Your task to perform on an android device: turn on showing notifications on the lock screen Image 0: 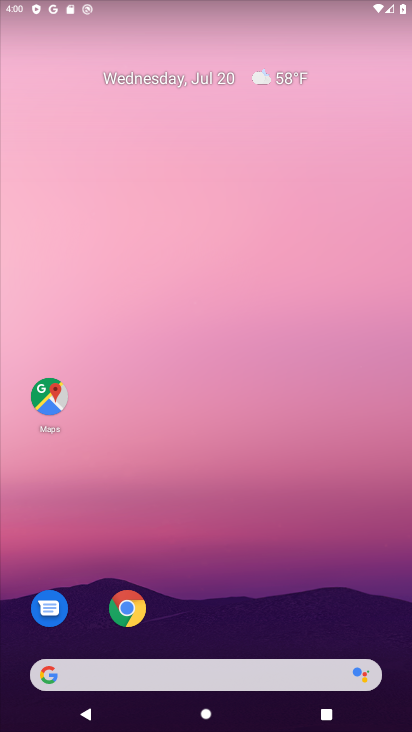
Step 0: drag from (212, 512) to (203, 101)
Your task to perform on an android device: turn on showing notifications on the lock screen Image 1: 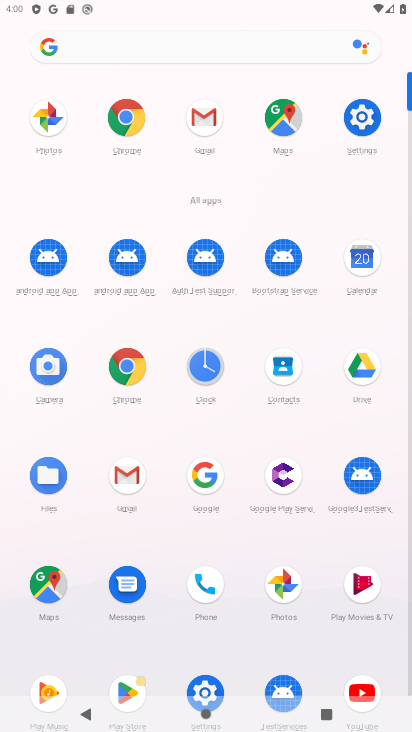
Step 1: click (200, 681)
Your task to perform on an android device: turn on showing notifications on the lock screen Image 2: 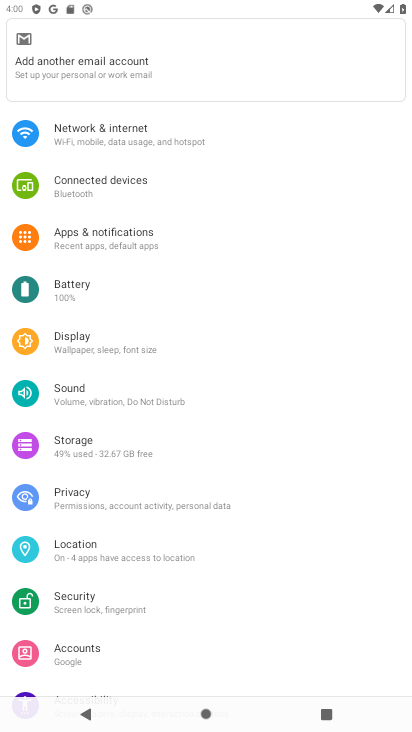
Step 2: click (126, 242)
Your task to perform on an android device: turn on showing notifications on the lock screen Image 3: 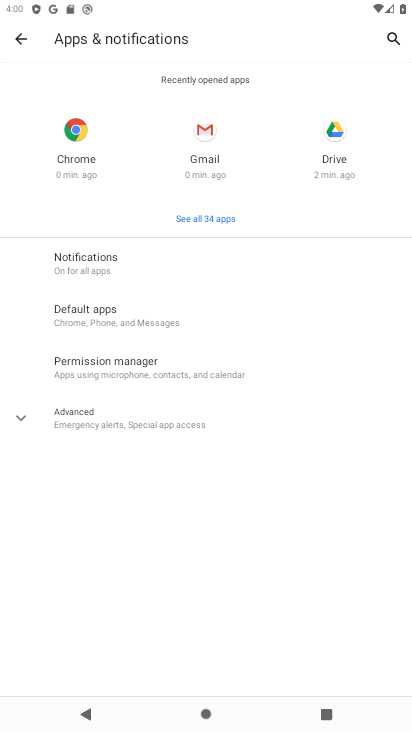
Step 3: click (109, 268)
Your task to perform on an android device: turn on showing notifications on the lock screen Image 4: 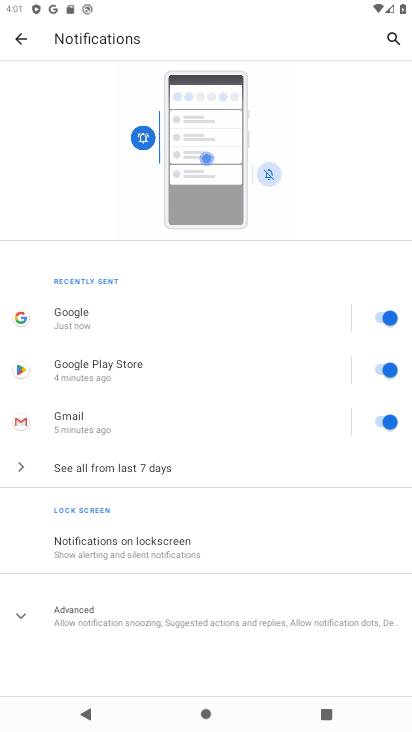
Step 4: click (96, 544)
Your task to perform on an android device: turn on showing notifications on the lock screen Image 5: 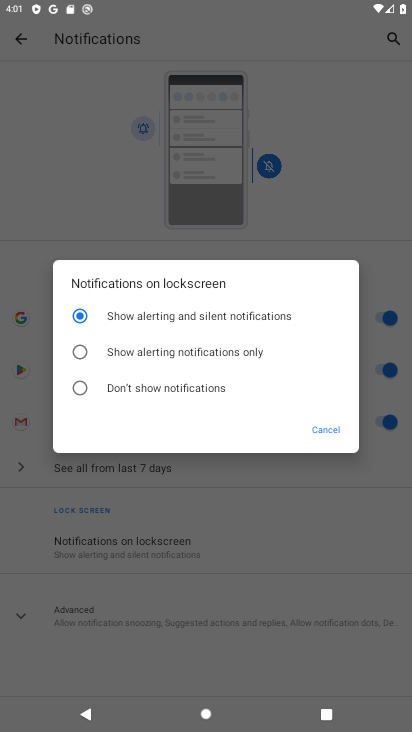
Step 5: task complete